Your task to perform on an android device: set the timer Image 0: 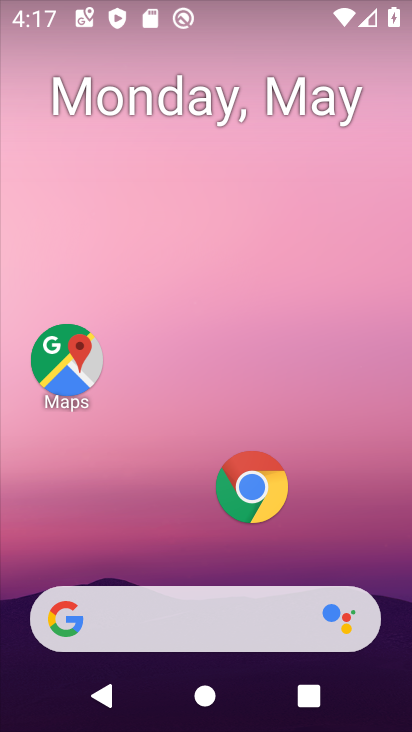
Step 0: drag from (145, 620) to (128, 43)
Your task to perform on an android device: set the timer Image 1: 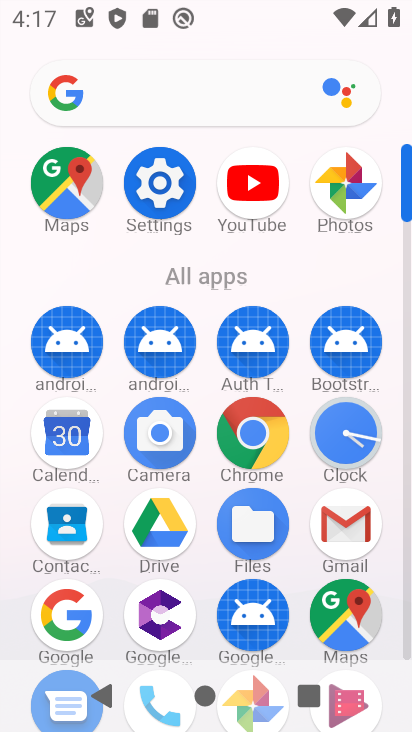
Step 1: click (352, 441)
Your task to perform on an android device: set the timer Image 2: 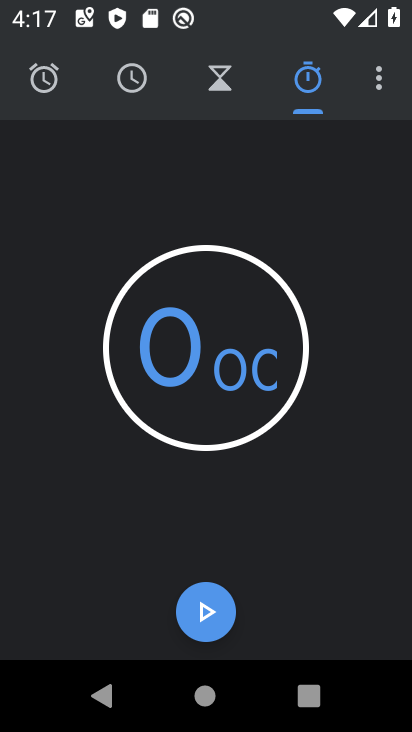
Step 2: click (215, 85)
Your task to perform on an android device: set the timer Image 3: 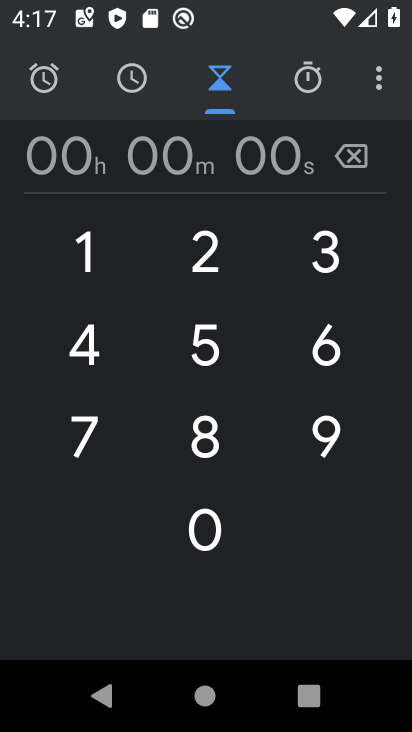
Step 3: click (217, 437)
Your task to perform on an android device: set the timer Image 4: 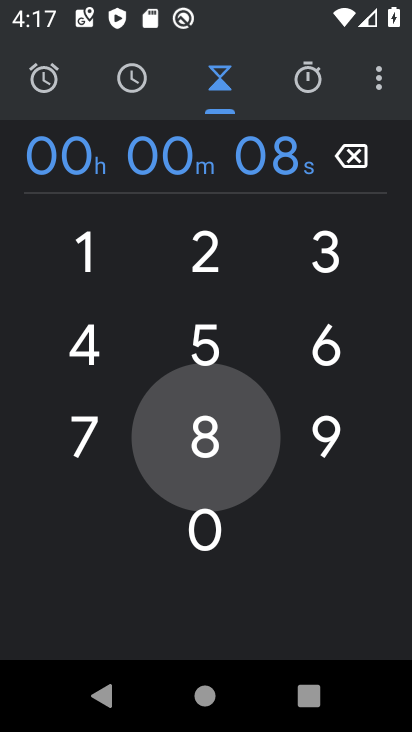
Step 4: click (201, 525)
Your task to perform on an android device: set the timer Image 5: 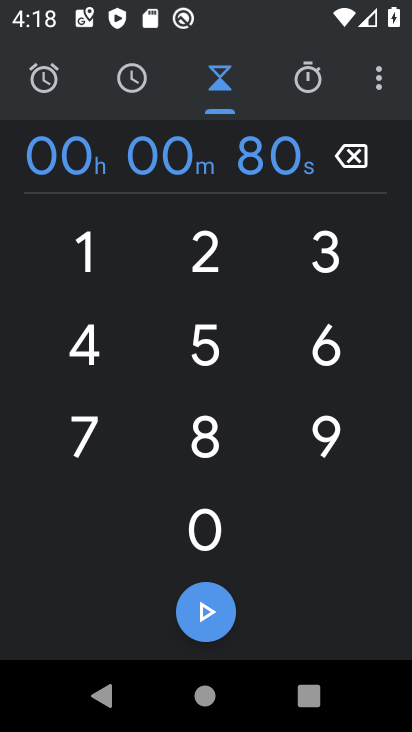
Step 5: click (192, 644)
Your task to perform on an android device: set the timer Image 6: 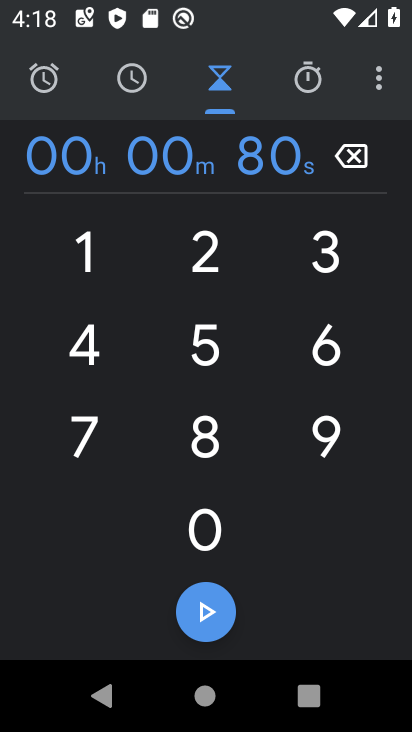
Step 6: task complete